Your task to perform on an android device: turn on notifications settings in the gmail app Image 0: 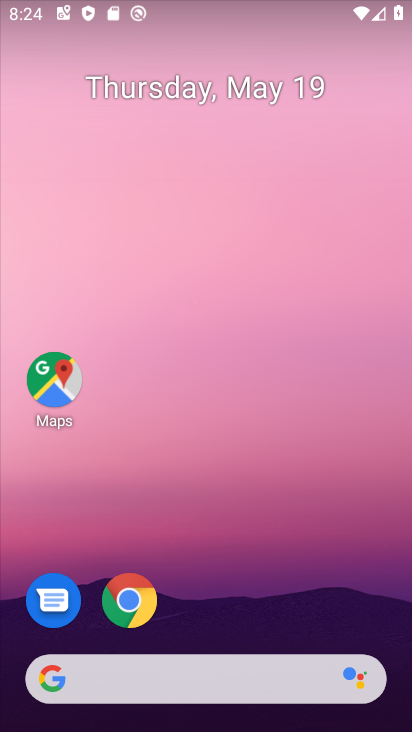
Step 0: drag from (320, 564) to (318, 7)
Your task to perform on an android device: turn on notifications settings in the gmail app Image 1: 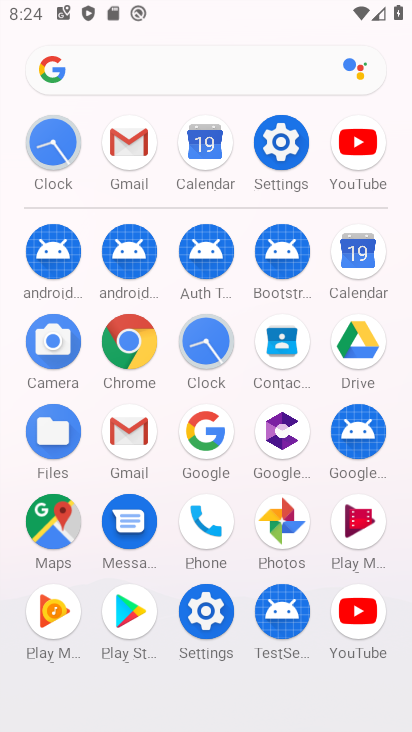
Step 1: click (117, 147)
Your task to perform on an android device: turn on notifications settings in the gmail app Image 2: 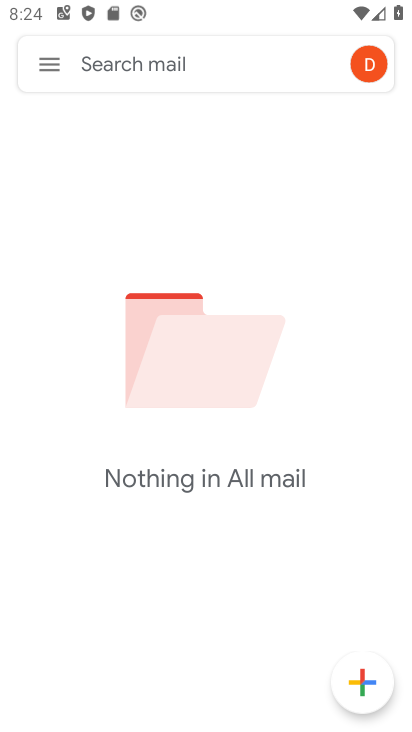
Step 2: click (52, 63)
Your task to perform on an android device: turn on notifications settings in the gmail app Image 3: 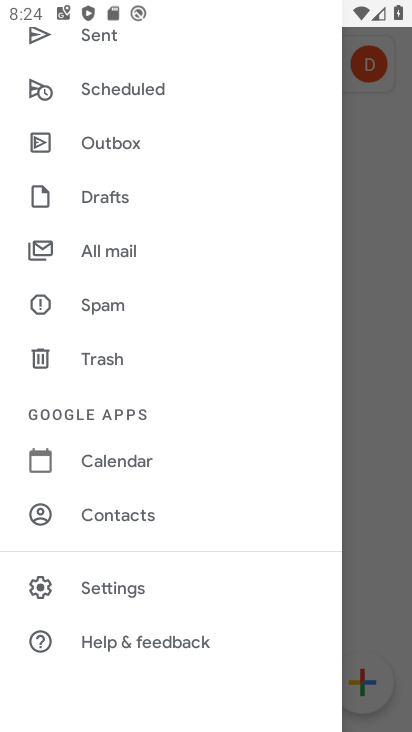
Step 3: click (134, 582)
Your task to perform on an android device: turn on notifications settings in the gmail app Image 4: 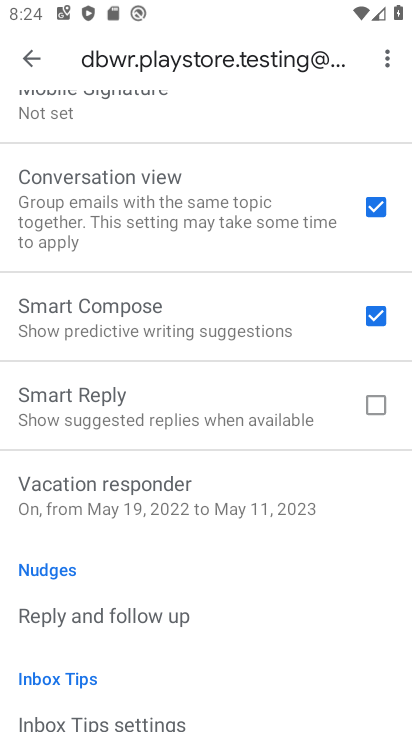
Step 4: drag from (164, 194) to (159, 492)
Your task to perform on an android device: turn on notifications settings in the gmail app Image 5: 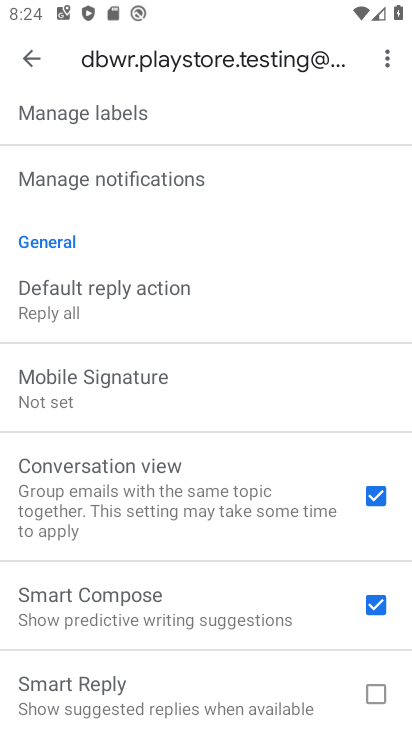
Step 5: click (33, 58)
Your task to perform on an android device: turn on notifications settings in the gmail app Image 6: 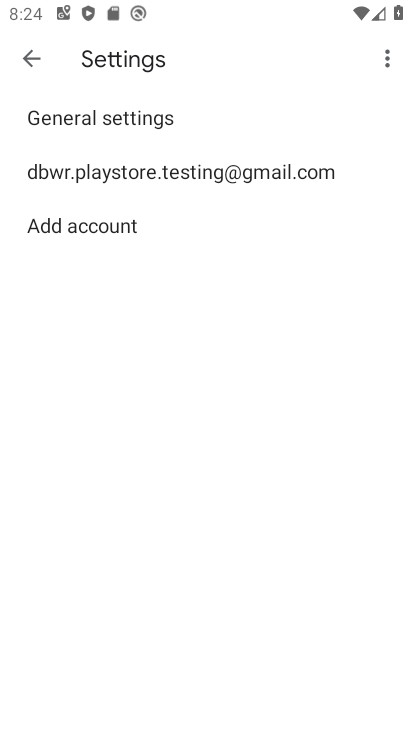
Step 6: click (36, 115)
Your task to perform on an android device: turn on notifications settings in the gmail app Image 7: 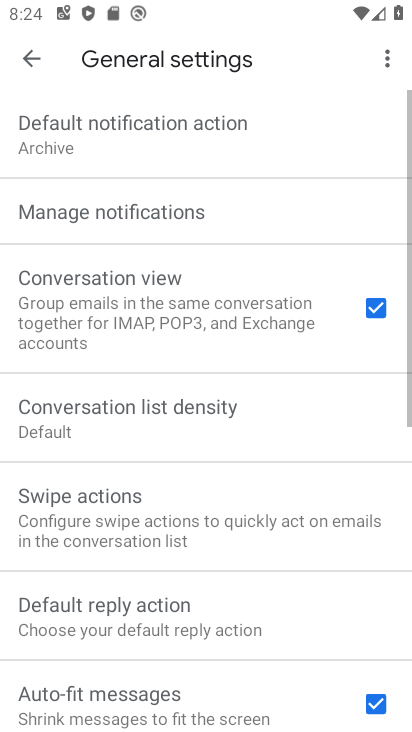
Step 7: click (92, 212)
Your task to perform on an android device: turn on notifications settings in the gmail app Image 8: 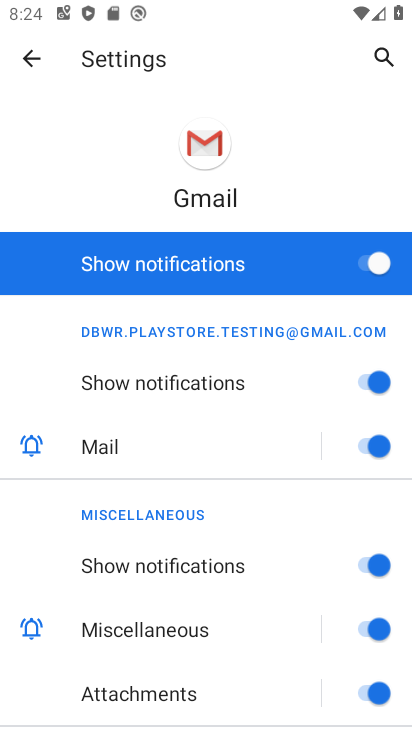
Step 8: task complete